Your task to perform on an android device: Open internet settings Image 0: 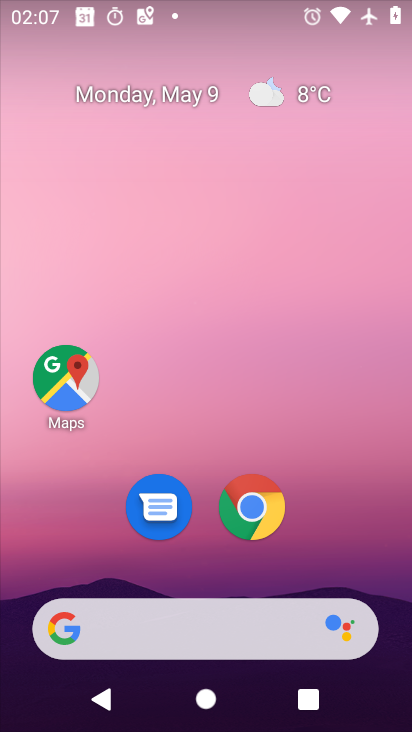
Step 0: drag from (220, 727) to (213, 150)
Your task to perform on an android device: Open internet settings Image 1: 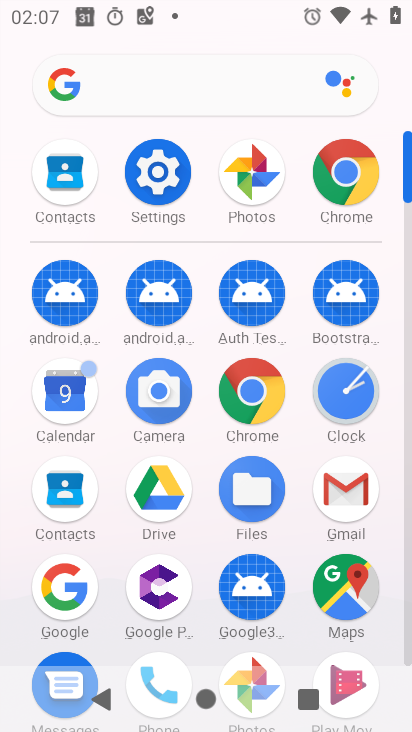
Step 1: click (150, 174)
Your task to perform on an android device: Open internet settings Image 2: 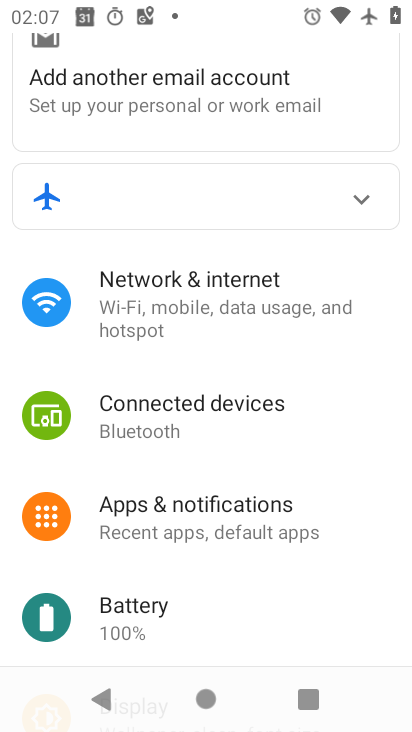
Step 2: click (135, 295)
Your task to perform on an android device: Open internet settings Image 3: 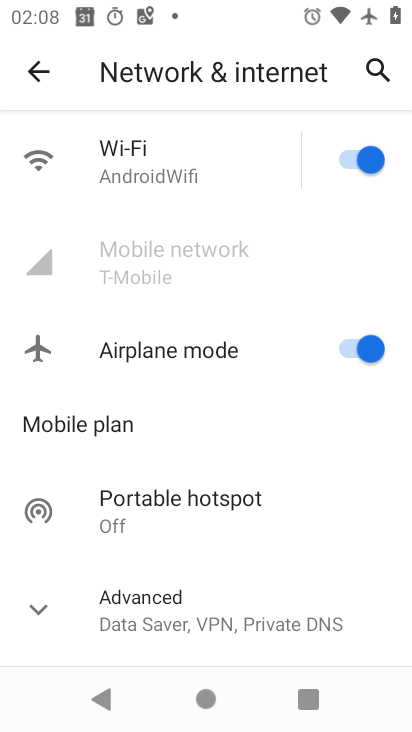
Step 3: click (364, 349)
Your task to perform on an android device: Open internet settings Image 4: 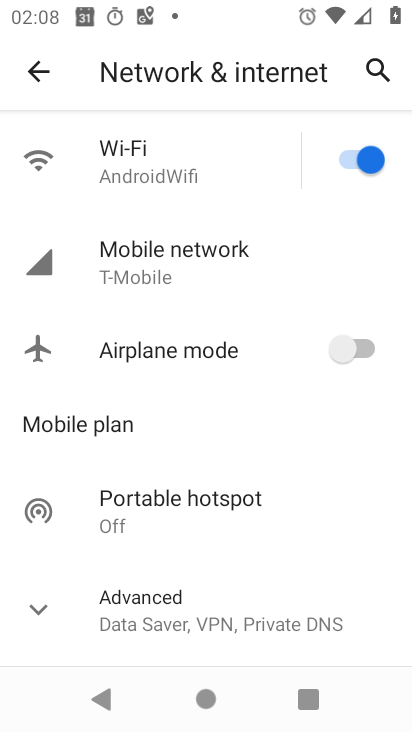
Step 4: click (178, 258)
Your task to perform on an android device: Open internet settings Image 5: 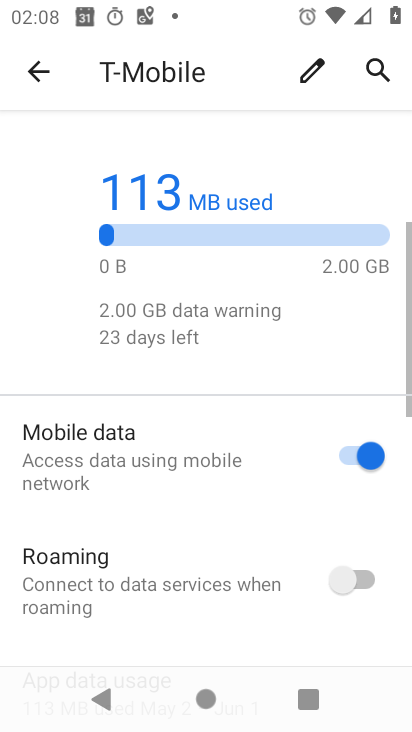
Step 5: click (149, 252)
Your task to perform on an android device: Open internet settings Image 6: 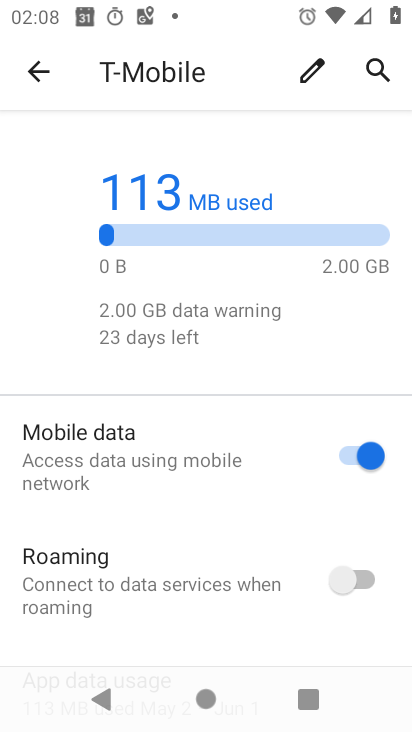
Step 6: task complete